Your task to perform on an android device: turn on notifications settings in the gmail app Image 0: 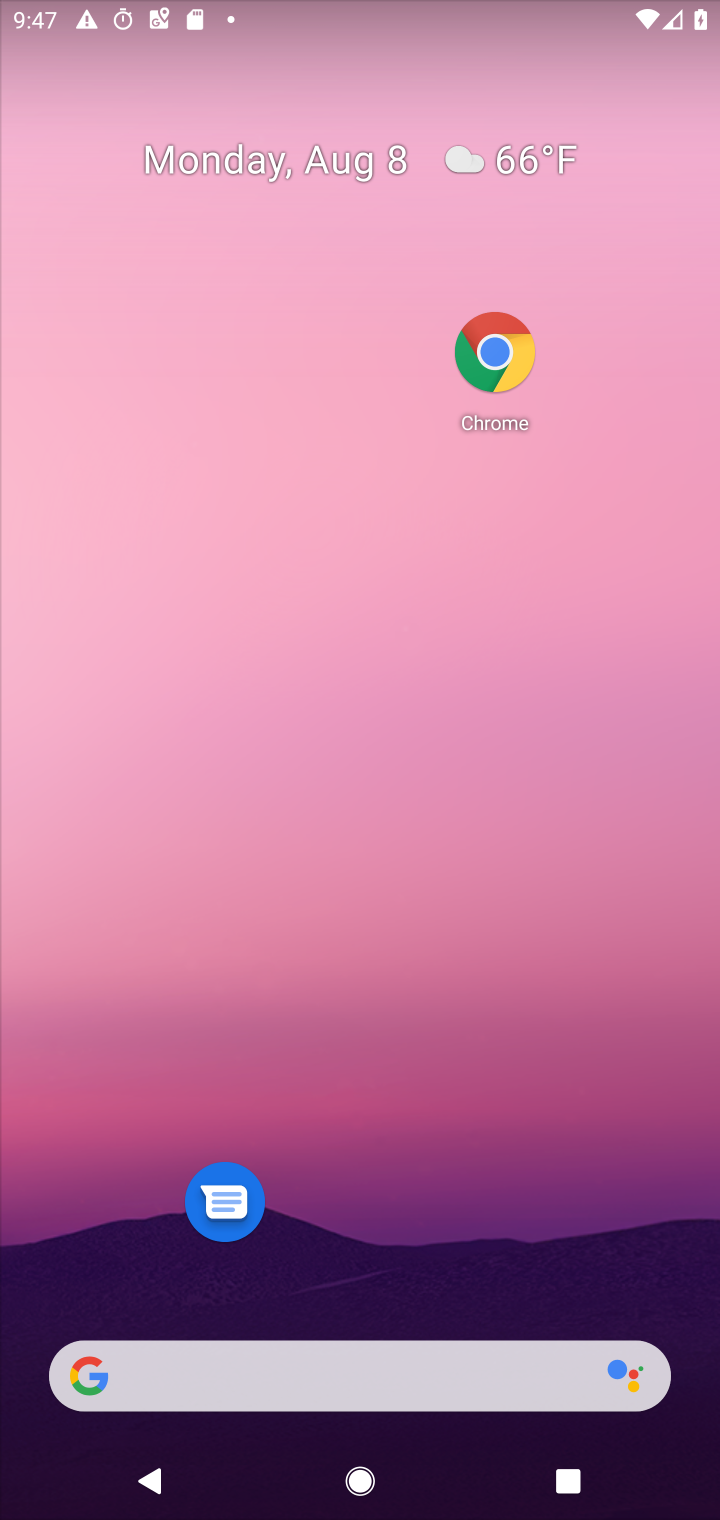
Step 0: drag from (504, 593) to (573, 266)
Your task to perform on an android device: turn on notifications settings in the gmail app Image 1: 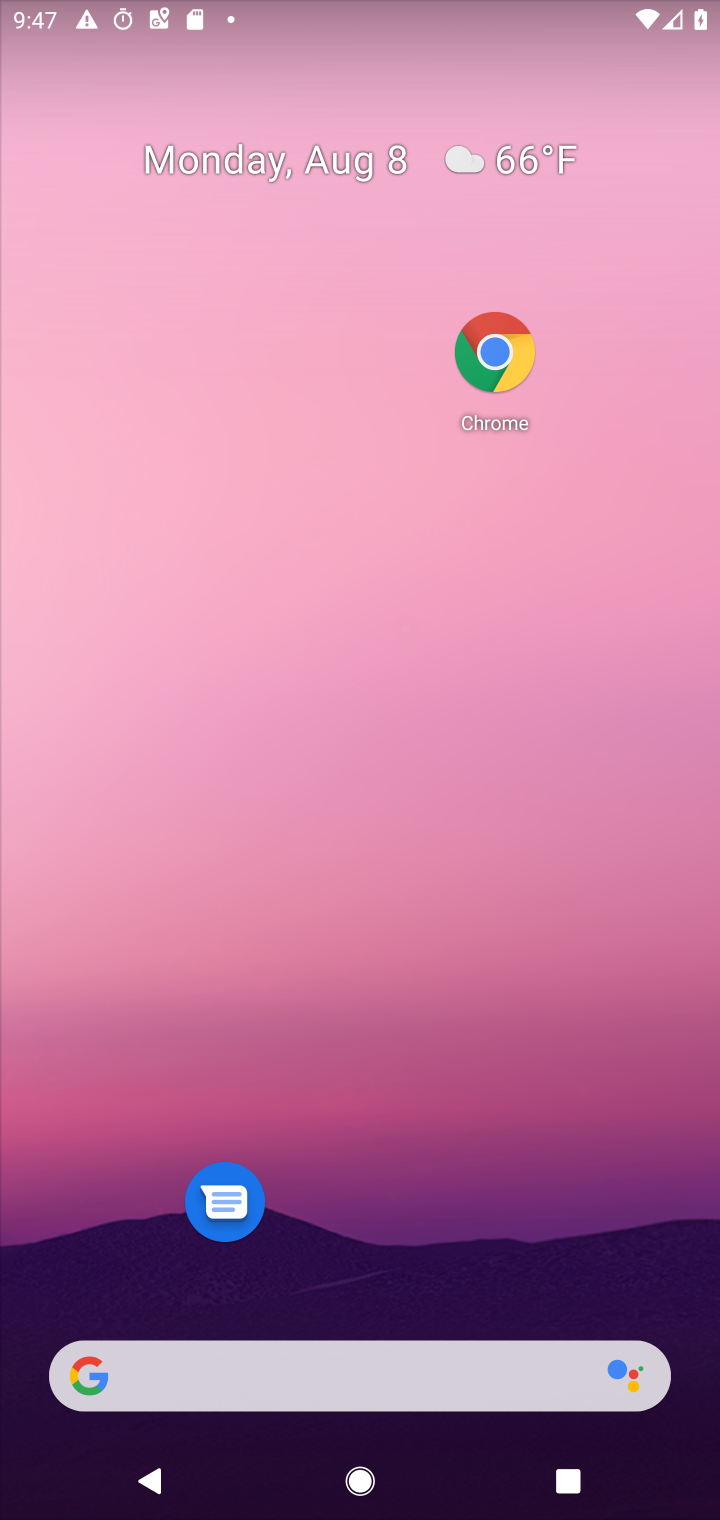
Step 1: drag from (401, 1330) to (438, 218)
Your task to perform on an android device: turn on notifications settings in the gmail app Image 2: 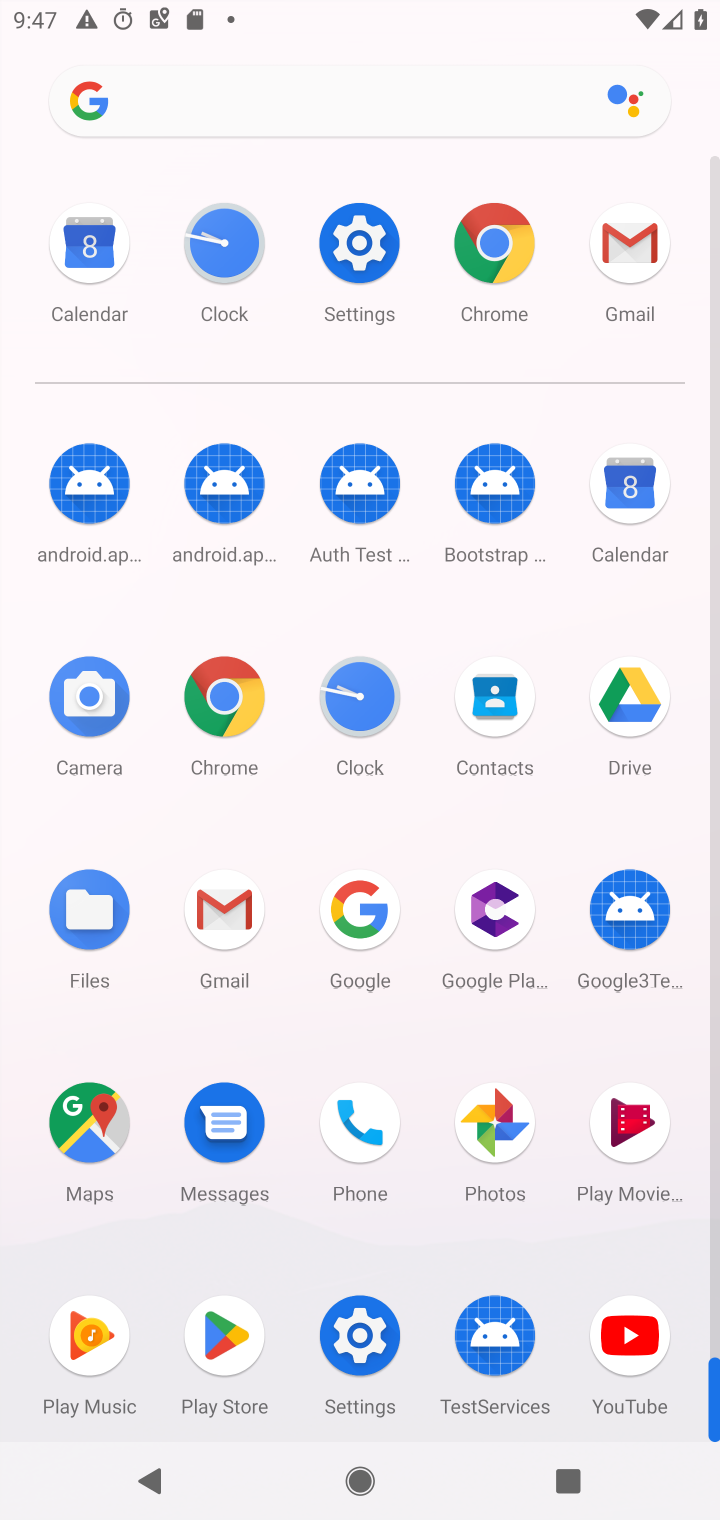
Step 2: click (199, 940)
Your task to perform on an android device: turn on notifications settings in the gmail app Image 3: 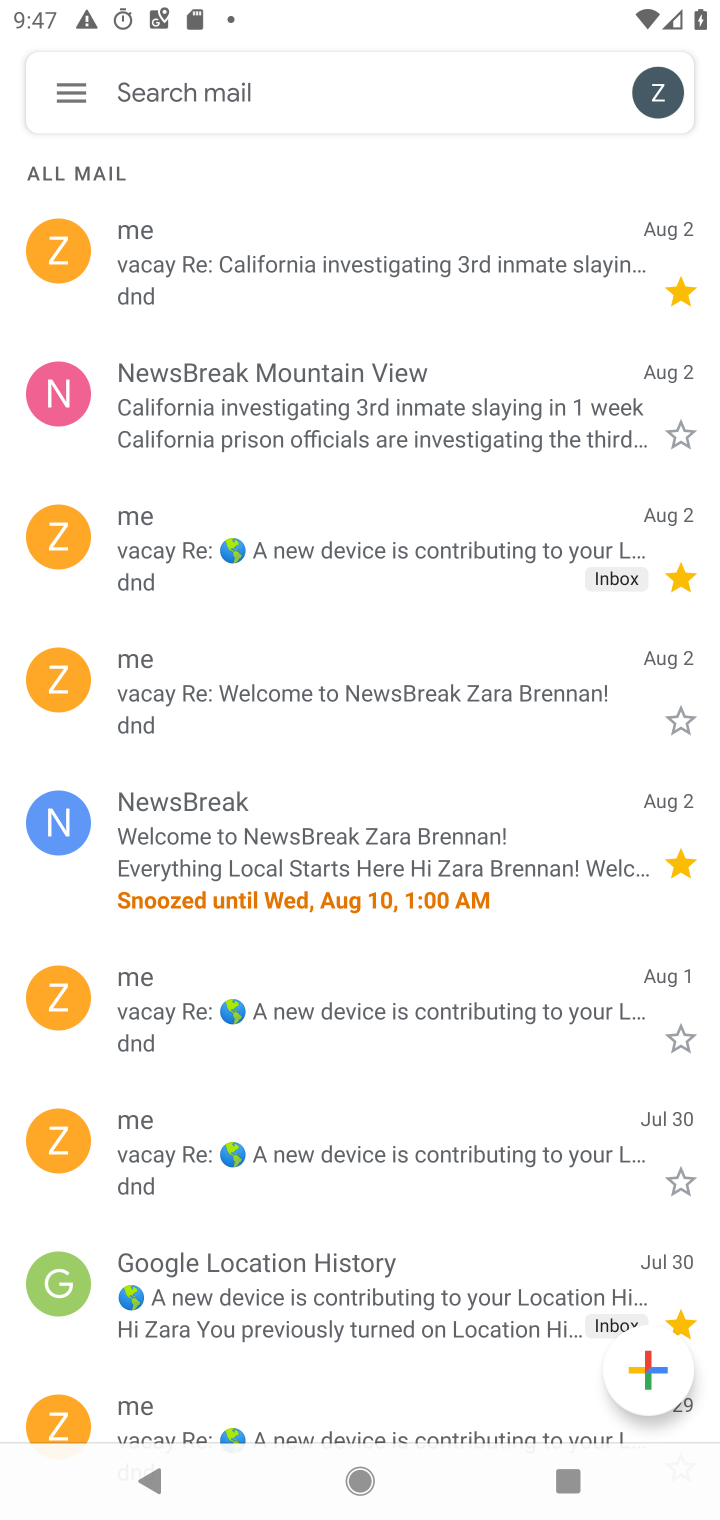
Step 3: click (83, 99)
Your task to perform on an android device: turn on notifications settings in the gmail app Image 4: 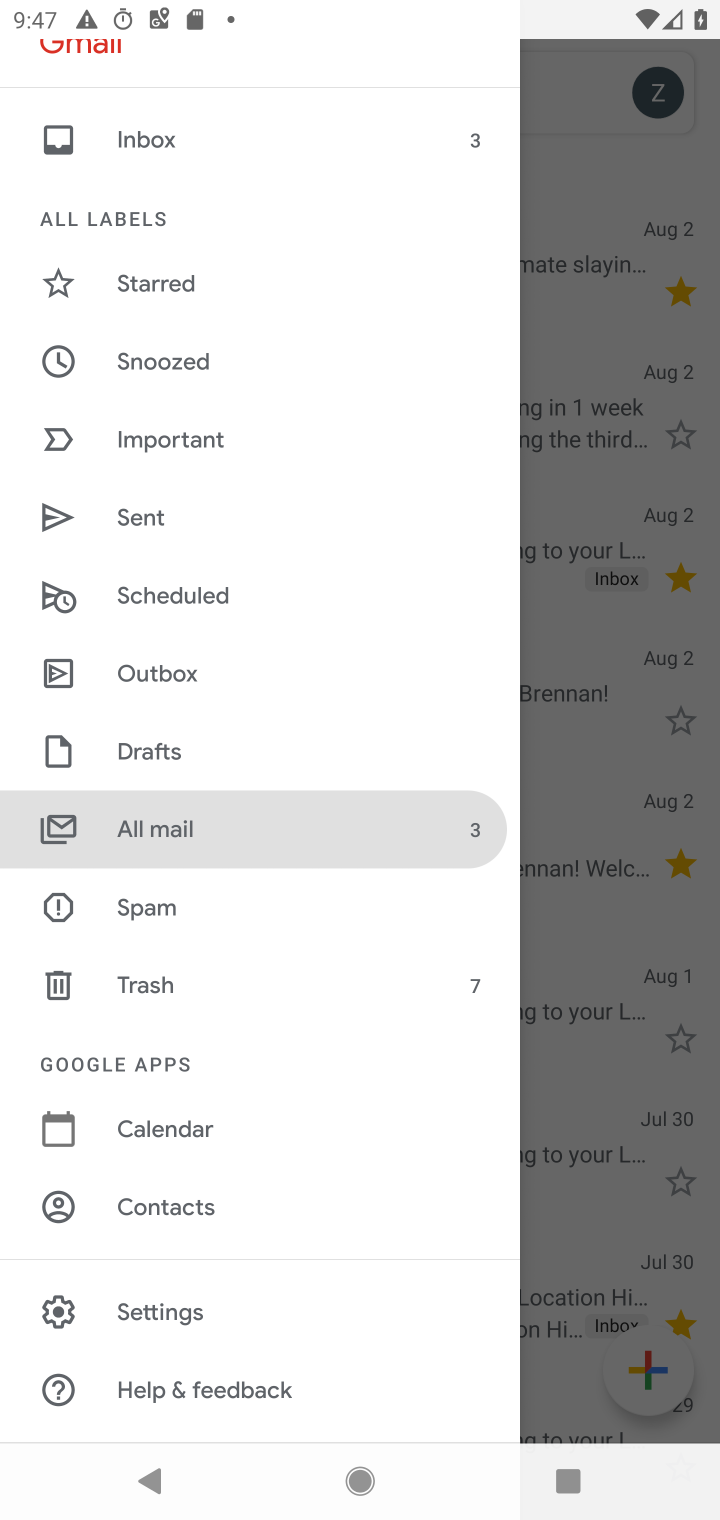
Step 4: click (175, 1319)
Your task to perform on an android device: turn on notifications settings in the gmail app Image 5: 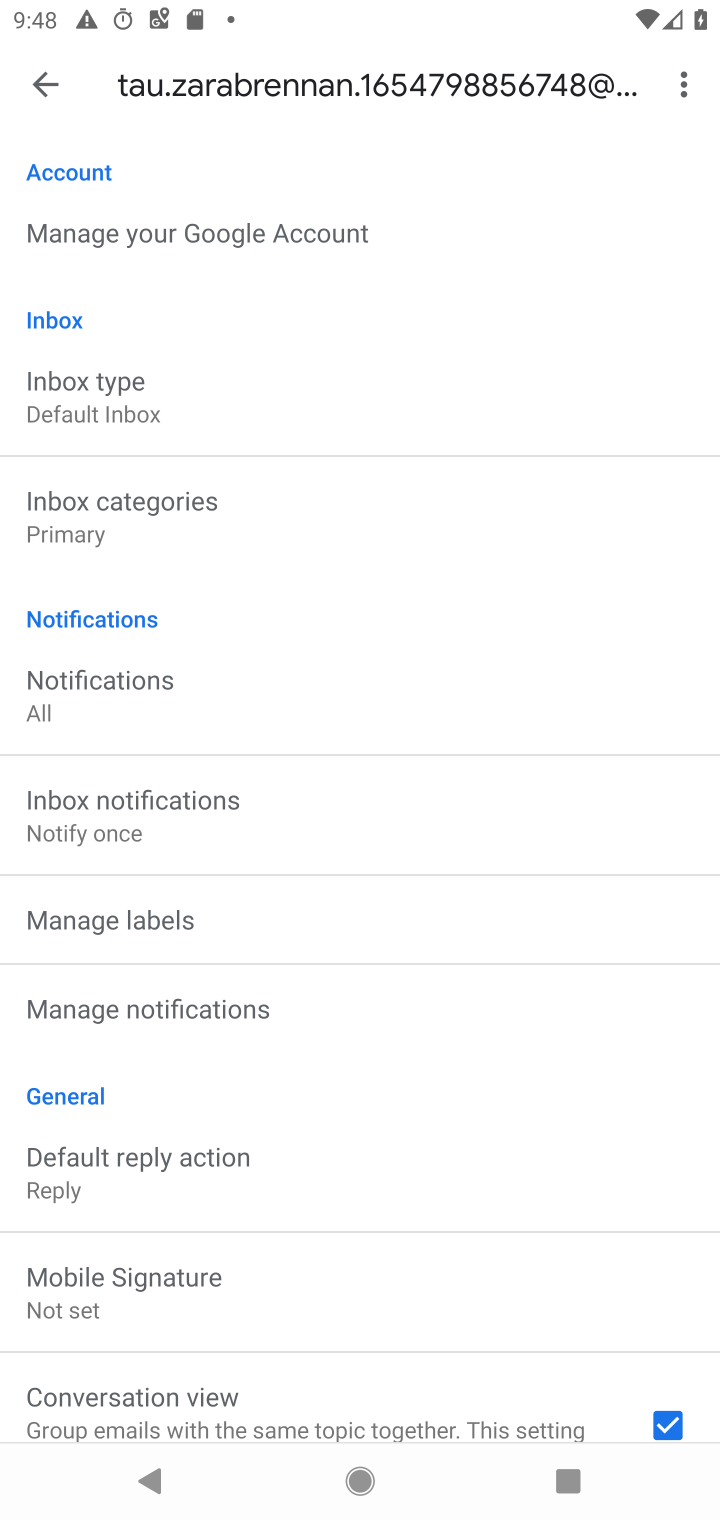
Step 5: click (38, 84)
Your task to perform on an android device: turn on notifications settings in the gmail app Image 6: 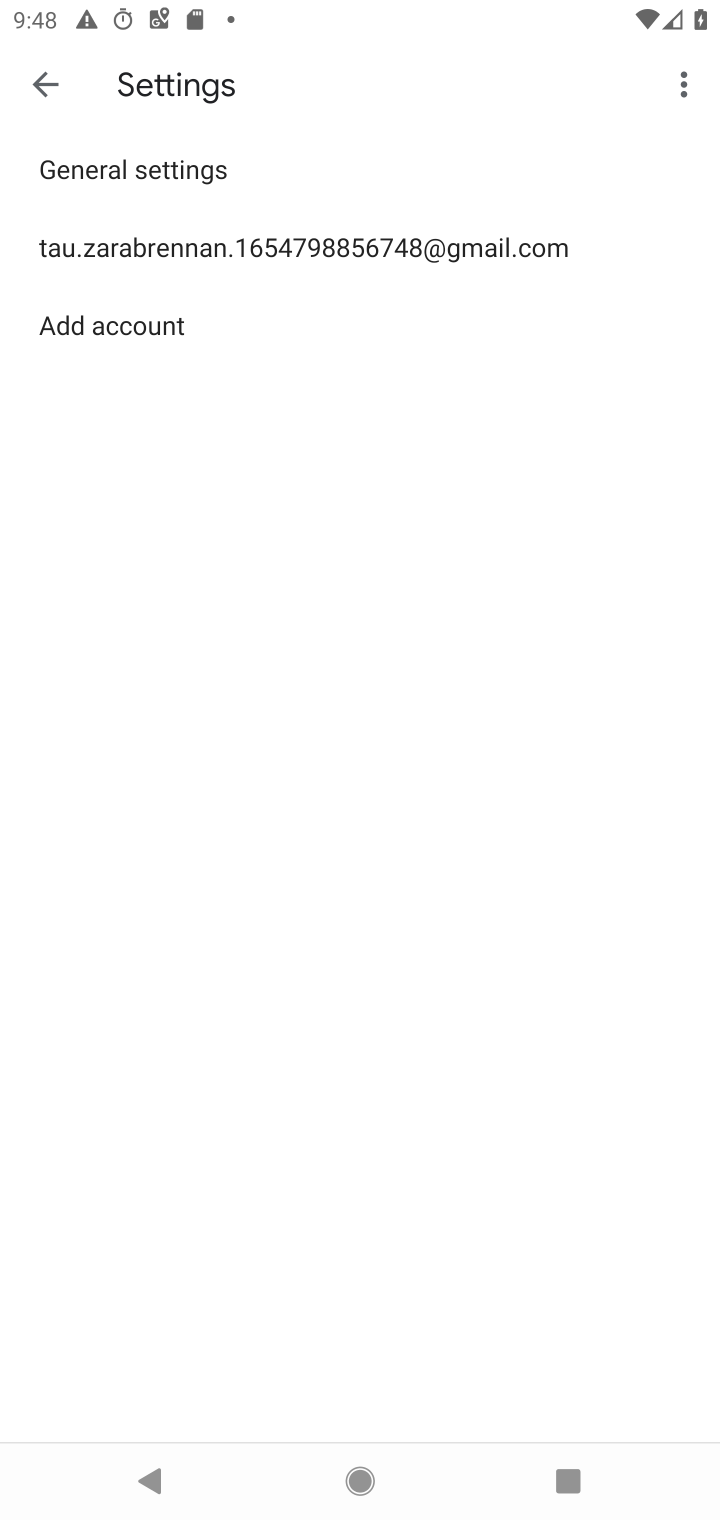
Step 6: click (171, 160)
Your task to perform on an android device: turn on notifications settings in the gmail app Image 7: 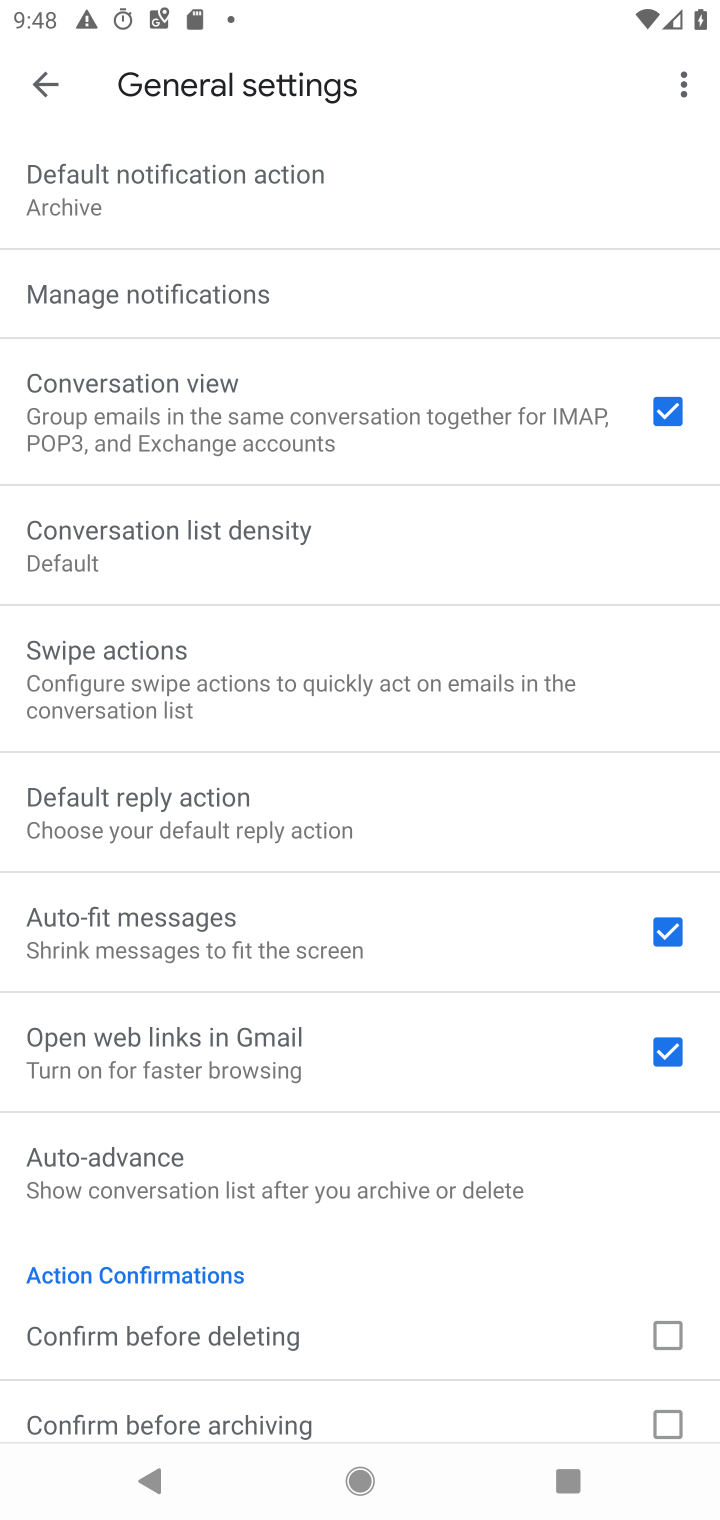
Step 7: click (226, 280)
Your task to perform on an android device: turn on notifications settings in the gmail app Image 8: 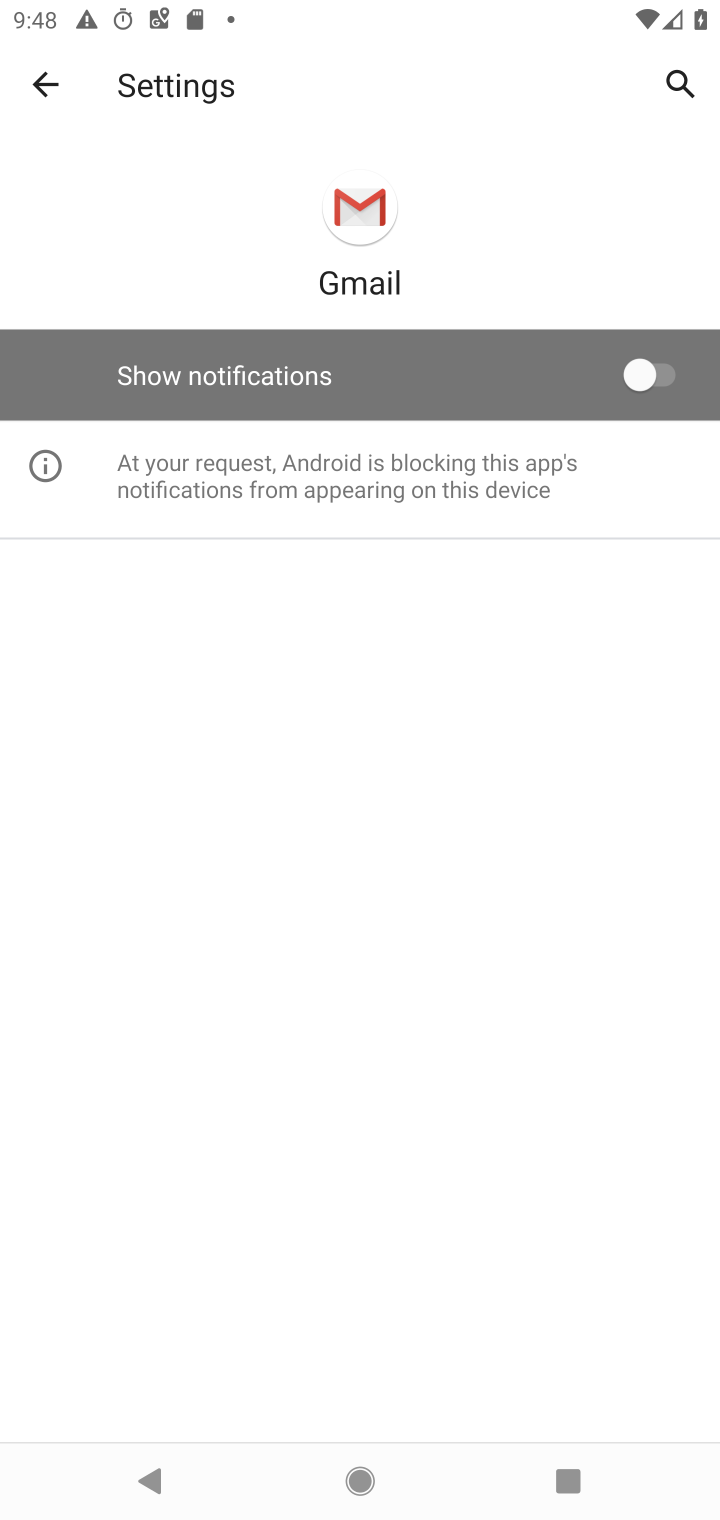
Step 8: click (632, 379)
Your task to perform on an android device: turn on notifications settings in the gmail app Image 9: 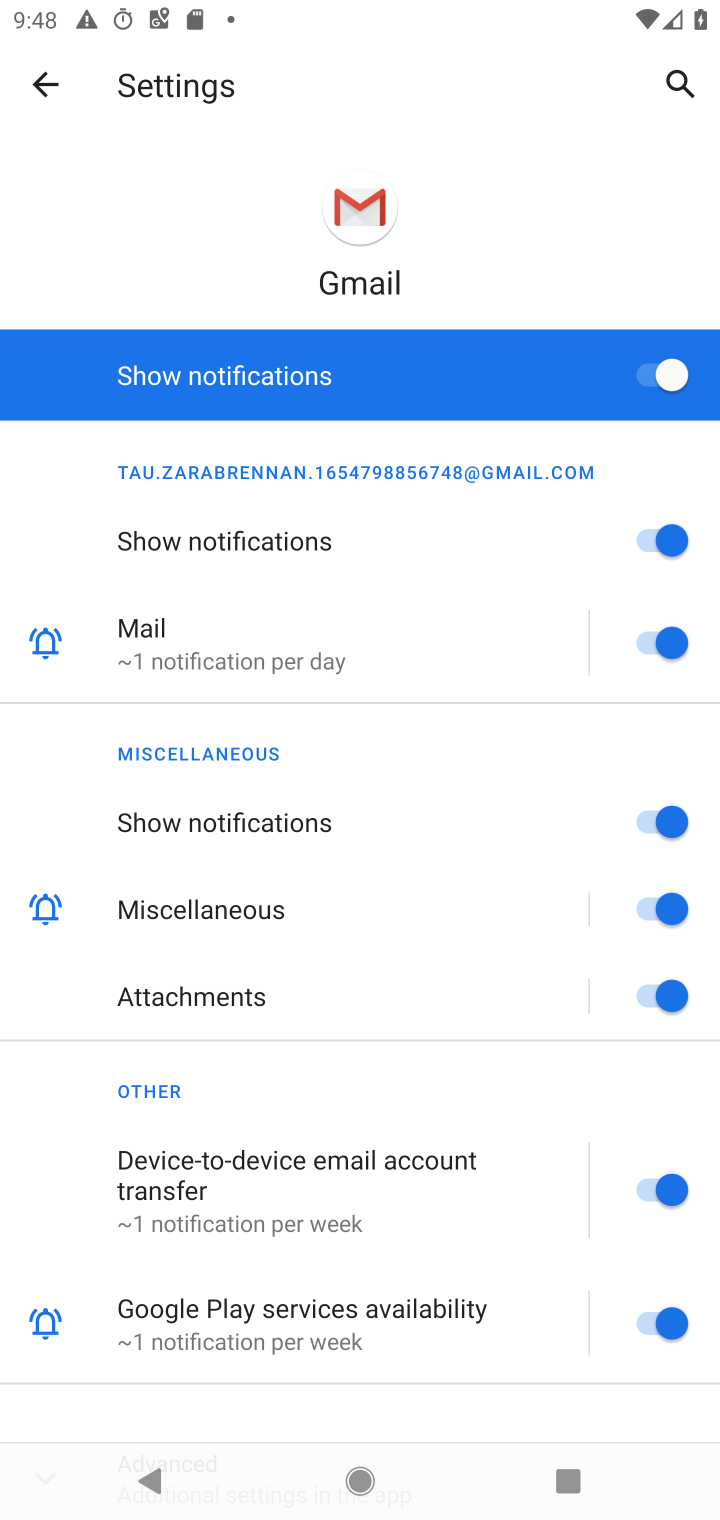
Step 9: task complete